Your task to perform on an android device: set default search engine in the chrome app Image 0: 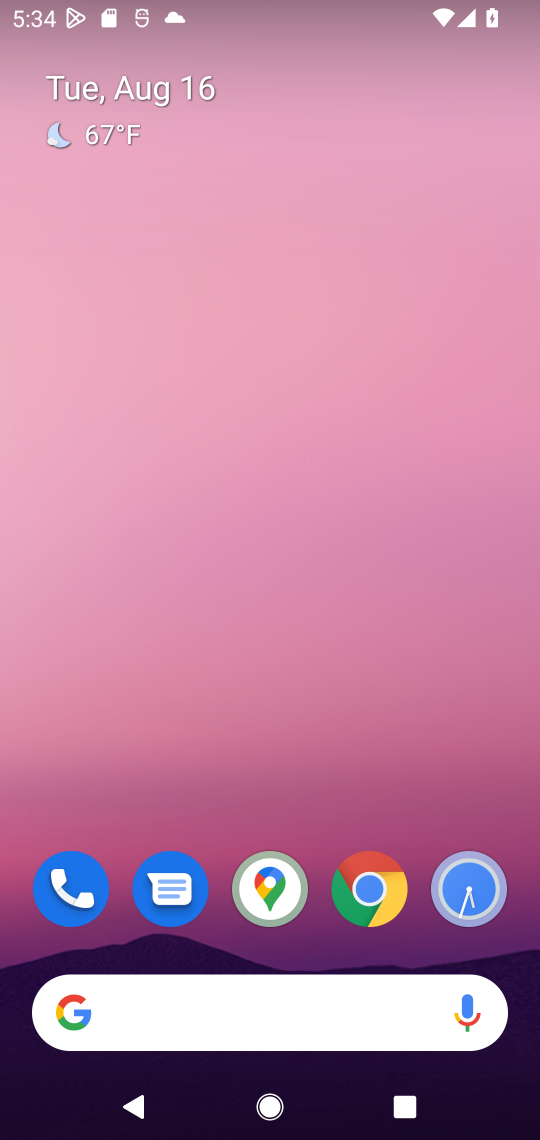
Step 0: drag from (168, 617) to (212, 1)
Your task to perform on an android device: set default search engine in the chrome app Image 1: 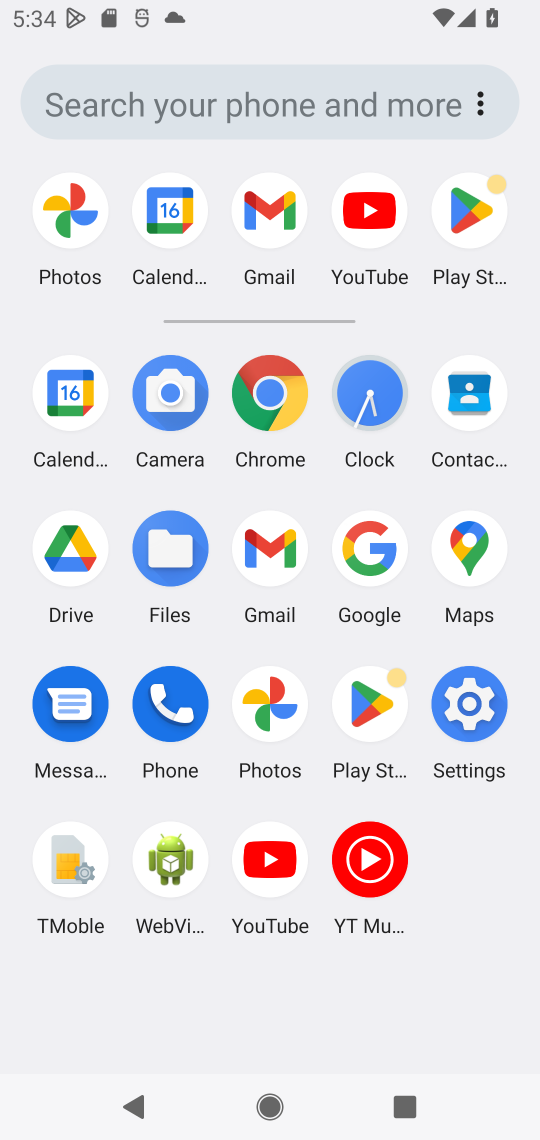
Step 1: click (277, 410)
Your task to perform on an android device: set default search engine in the chrome app Image 2: 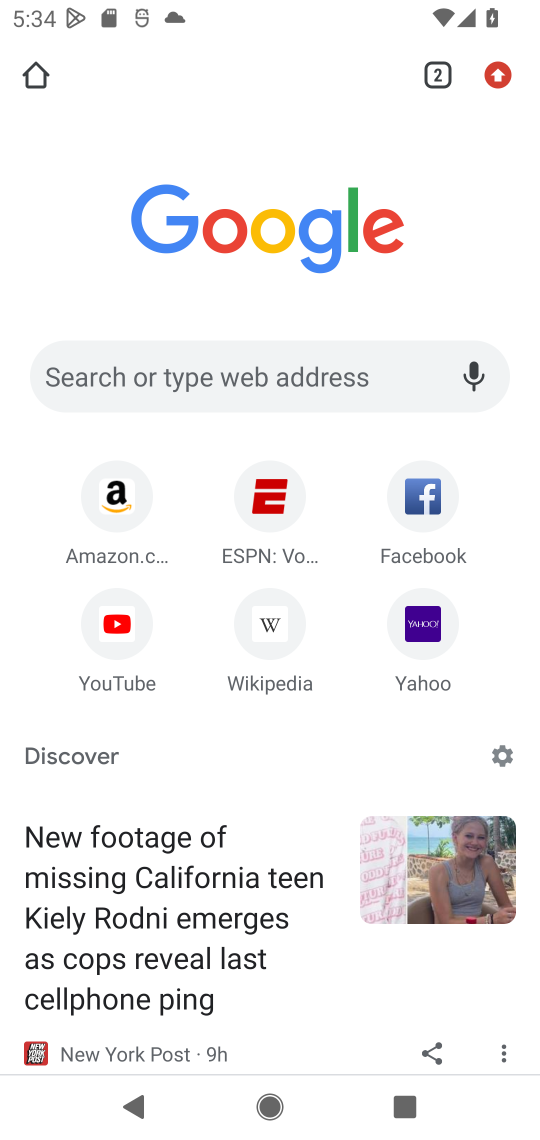
Step 2: task complete